Your task to perform on an android device: Is it going to rain today? Image 0: 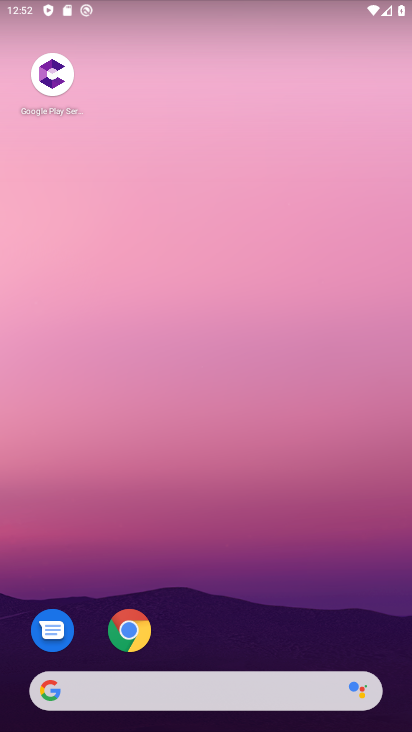
Step 0: drag from (22, 320) to (406, 344)
Your task to perform on an android device: Is it going to rain today? Image 1: 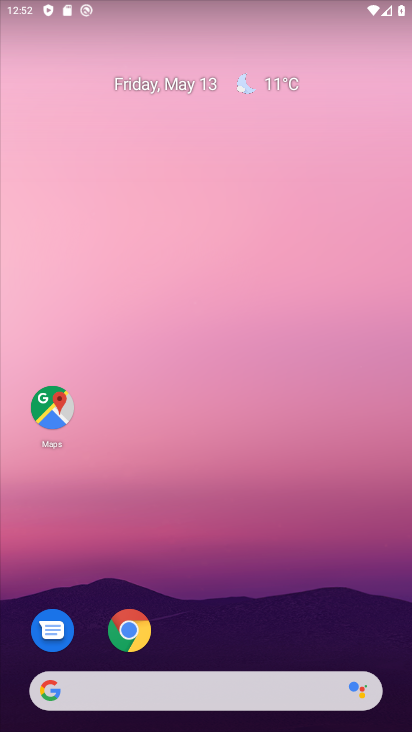
Step 1: click (285, 83)
Your task to perform on an android device: Is it going to rain today? Image 2: 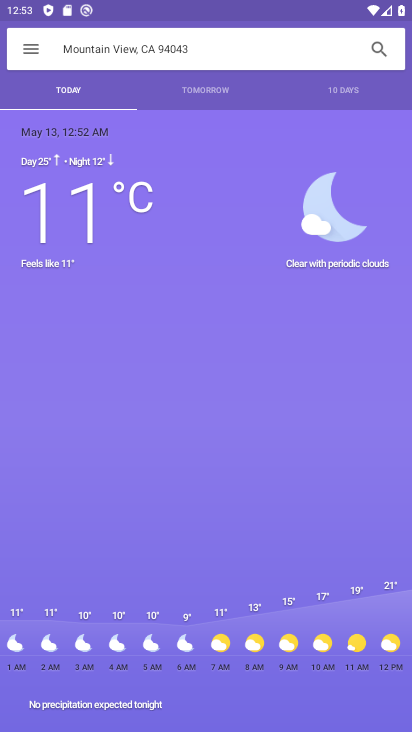
Step 2: press back button
Your task to perform on an android device: Is it going to rain today? Image 3: 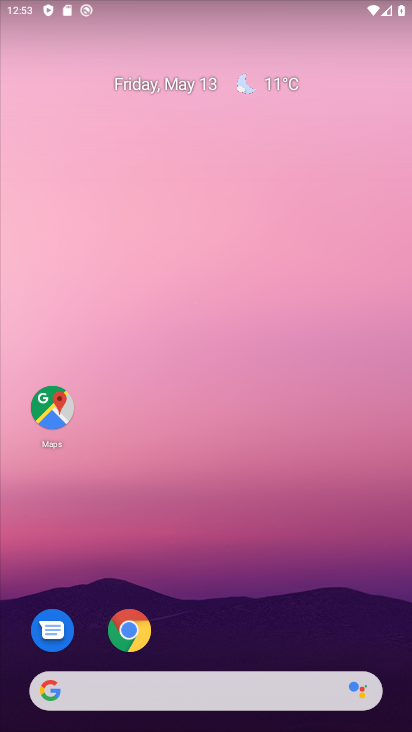
Step 3: click (270, 86)
Your task to perform on an android device: Is it going to rain today? Image 4: 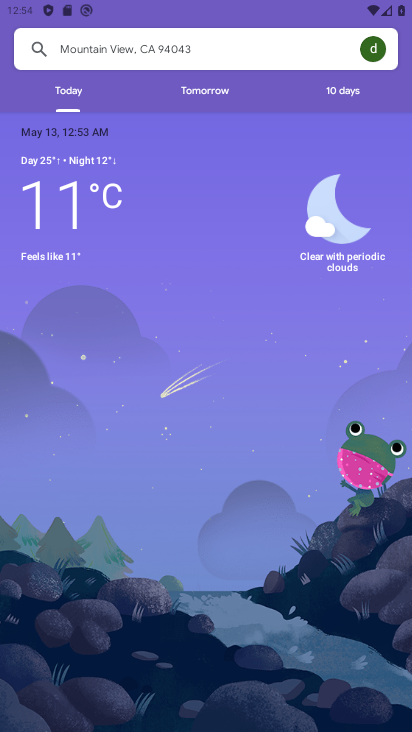
Step 4: task complete